Your task to perform on an android device: check storage Image 0: 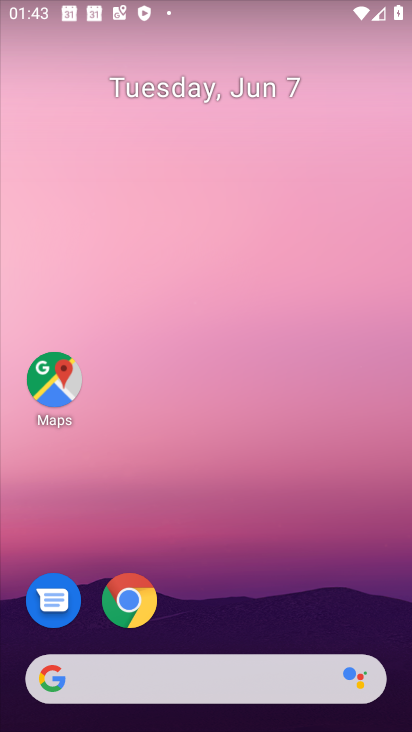
Step 0: drag from (202, 714) to (219, 230)
Your task to perform on an android device: check storage Image 1: 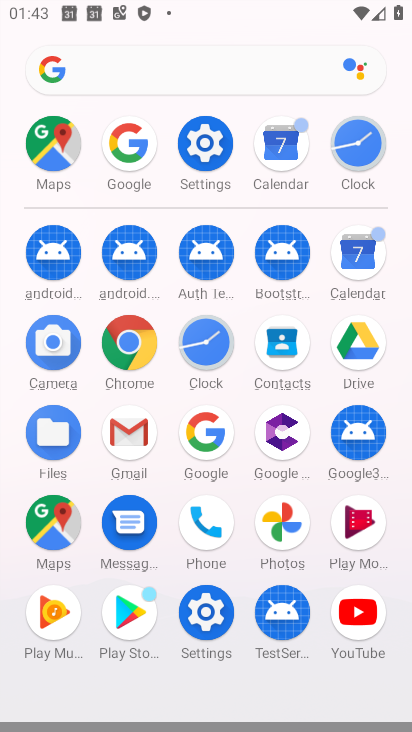
Step 1: click (202, 144)
Your task to perform on an android device: check storage Image 2: 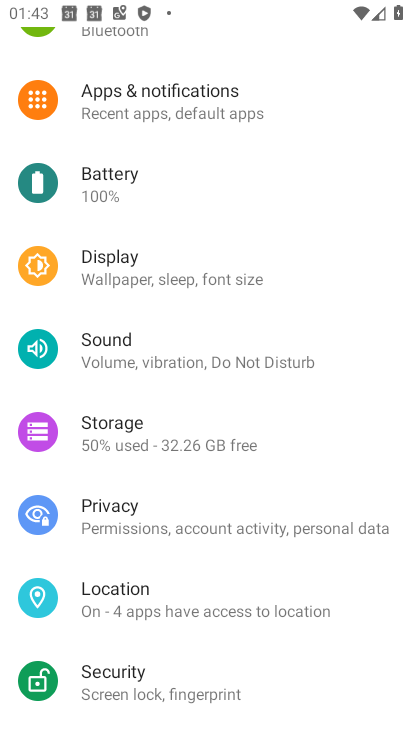
Step 2: click (118, 433)
Your task to perform on an android device: check storage Image 3: 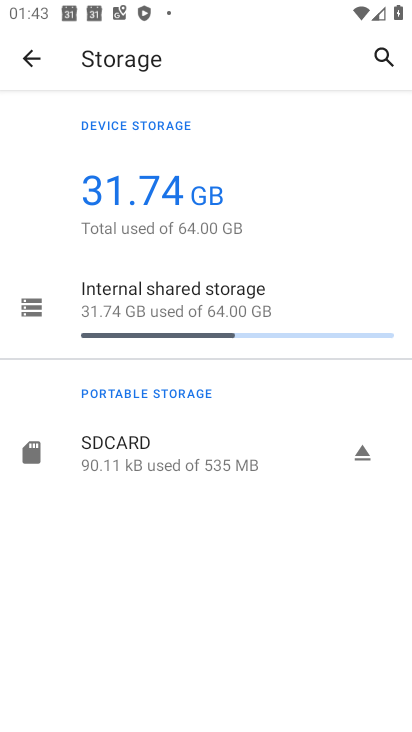
Step 3: task complete